Your task to perform on an android device: change text size in settings app Image 0: 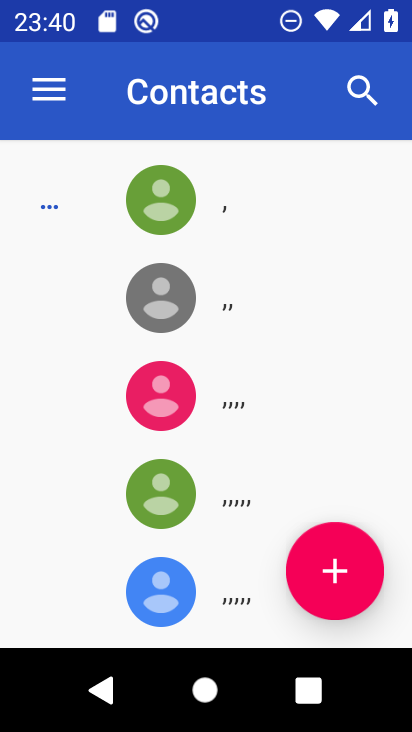
Step 0: press home button
Your task to perform on an android device: change text size in settings app Image 1: 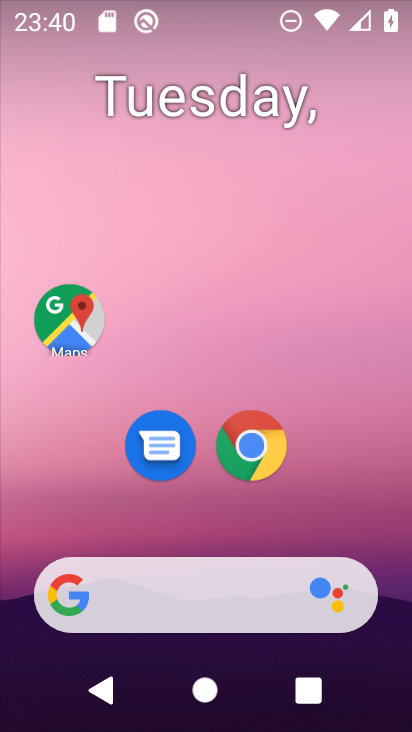
Step 1: drag from (254, 527) to (272, 40)
Your task to perform on an android device: change text size in settings app Image 2: 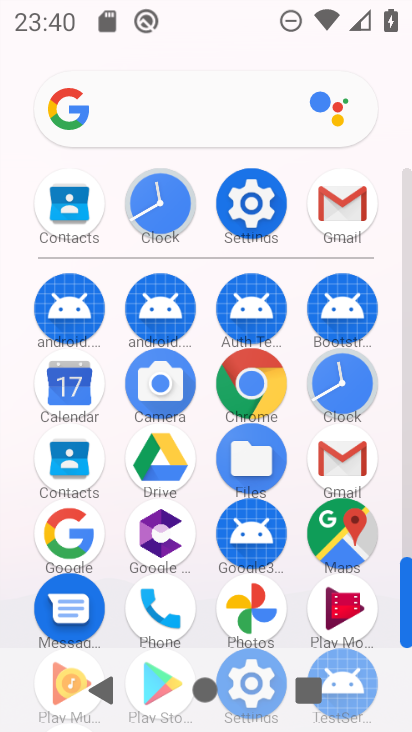
Step 2: click (247, 198)
Your task to perform on an android device: change text size in settings app Image 3: 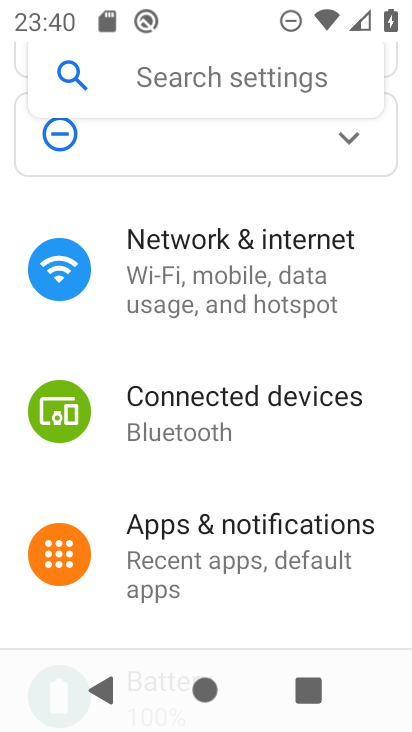
Step 3: drag from (191, 572) to (206, 383)
Your task to perform on an android device: change text size in settings app Image 4: 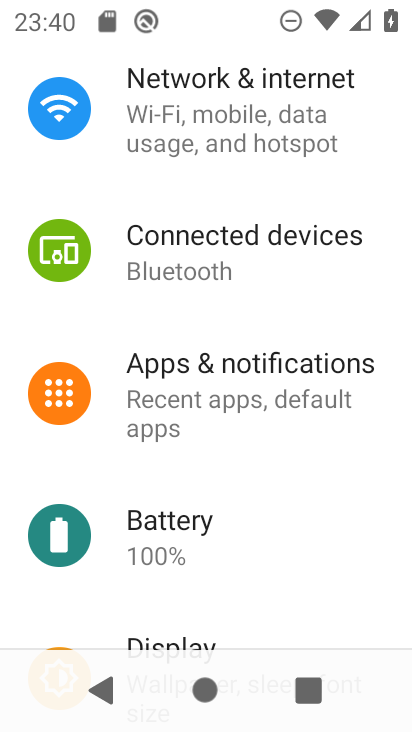
Step 4: drag from (170, 576) to (209, 349)
Your task to perform on an android device: change text size in settings app Image 5: 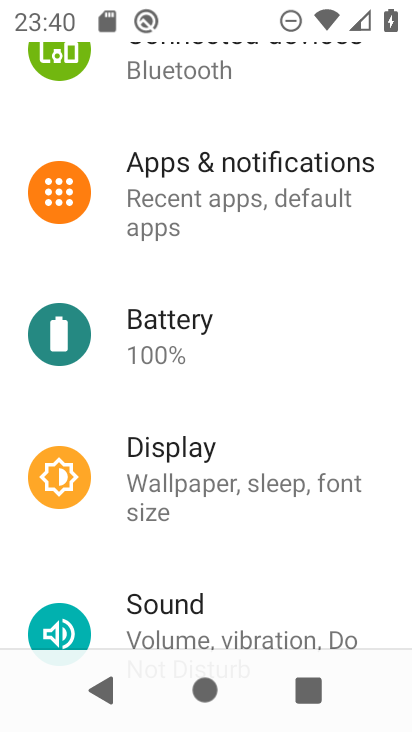
Step 5: drag from (188, 541) to (185, 391)
Your task to perform on an android device: change text size in settings app Image 6: 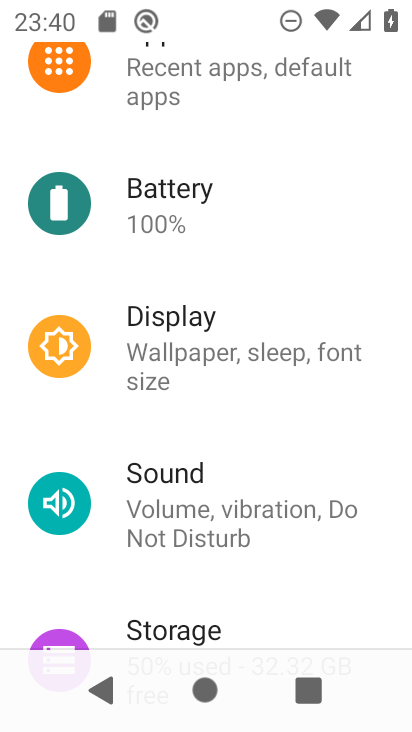
Step 6: drag from (161, 531) to (148, 407)
Your task to perform on an android device: change text size in settings app Image 7: 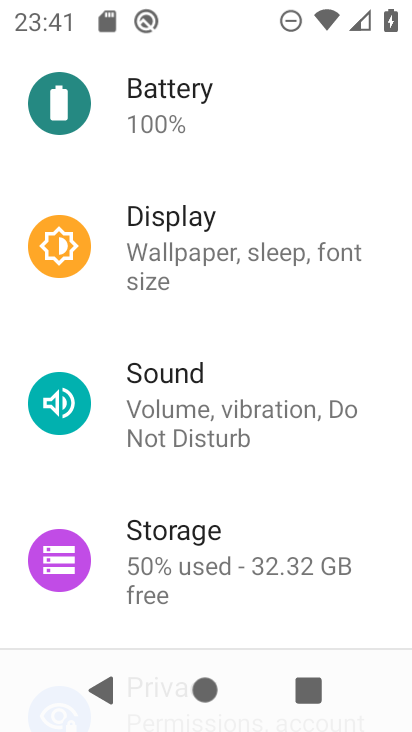
Step 7: drag from (134, 605) to (142, 465)
Your task to perform on an android device: change text size in settings app Image 8: 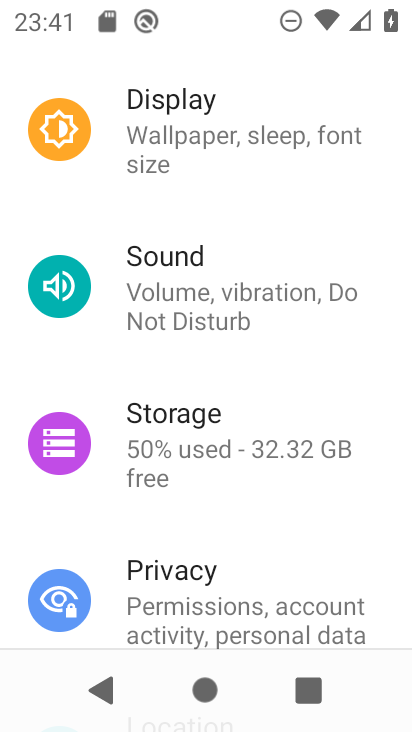
Step 8: drag from (174, 559) to (192, 442)
Your task to perform on an android device: change text size in settings app Image 9: 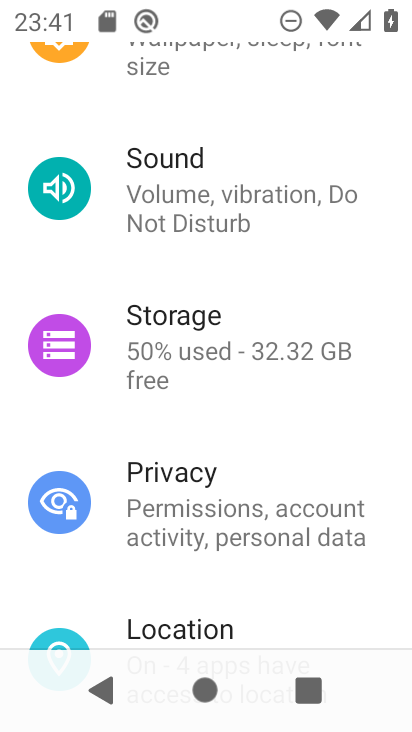
Step 9: drag from (207, 565) to (240, 350)
Your task to perform on an android device: change text size in settings app Image 10: 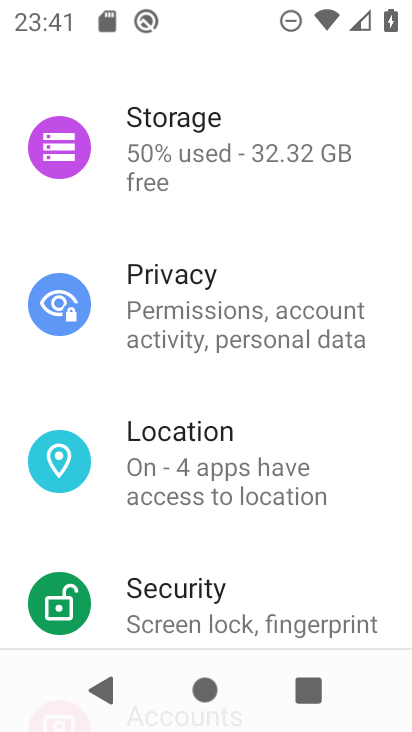
Step 10: drag from (278, 275) to (284, 630)
Your task to perform on an android device: change text size in settings app Image 11: 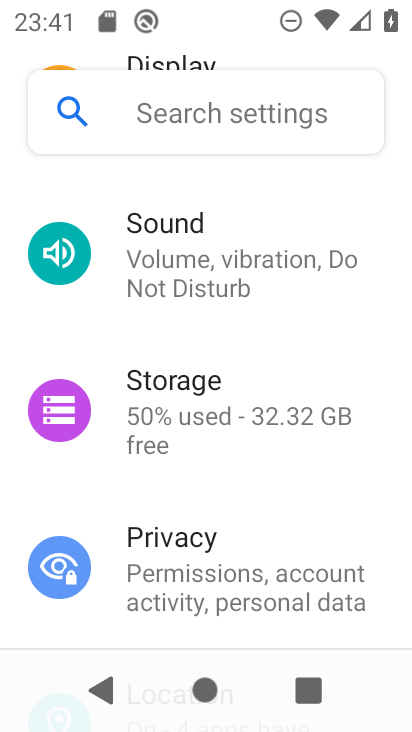
Step 11: drag from (317, 257) to (351, 558)
Your task to perform on an android device: change text size in settings app Image 12: 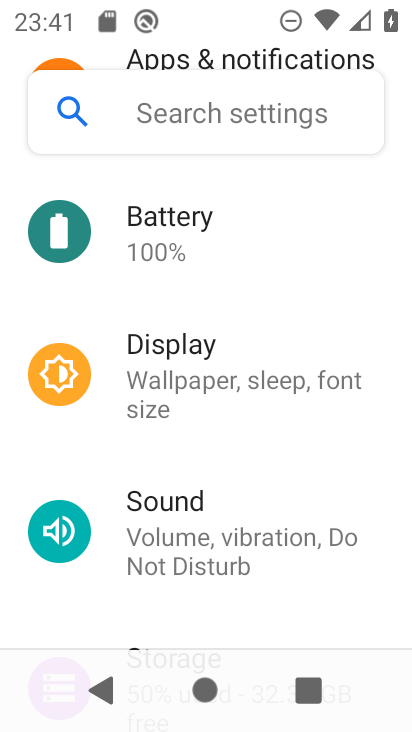
Step 12: click (265, 385)
Your task to perform on an android device: change text size in settings app Image 13: 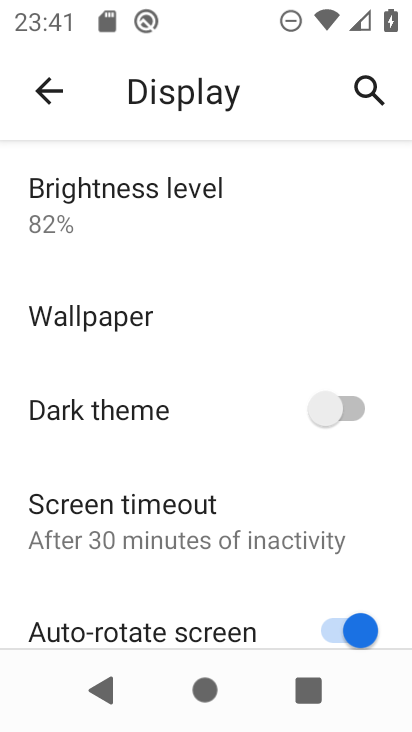
Step 13: drag from (201, 585) to (192, 206)
Your task to perform on an android device: change text size in settings app Image 14: 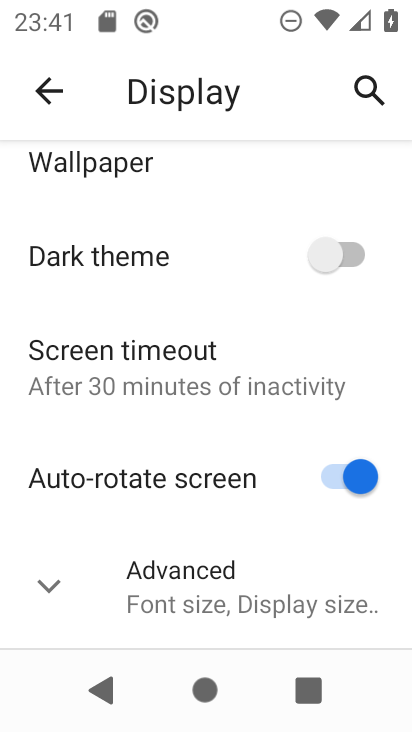
Step 14: click (220, 583)
Your task to perform on an android device: change text size in settings app Image 15: 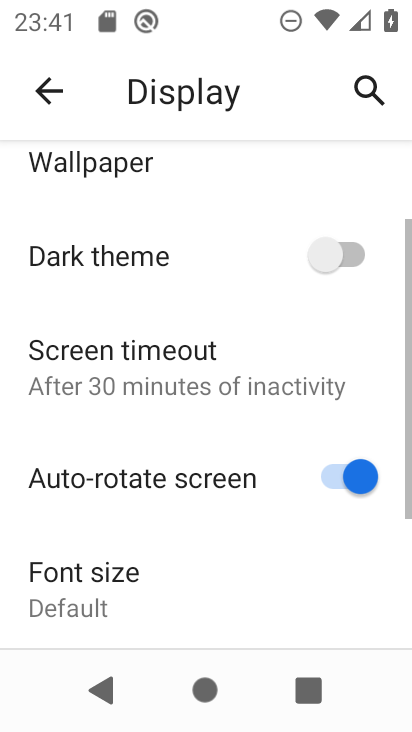
Step 15: drag from (204, 593) to (207, 215)
Your task to perform on an android device: change text size in settings app Image 16: 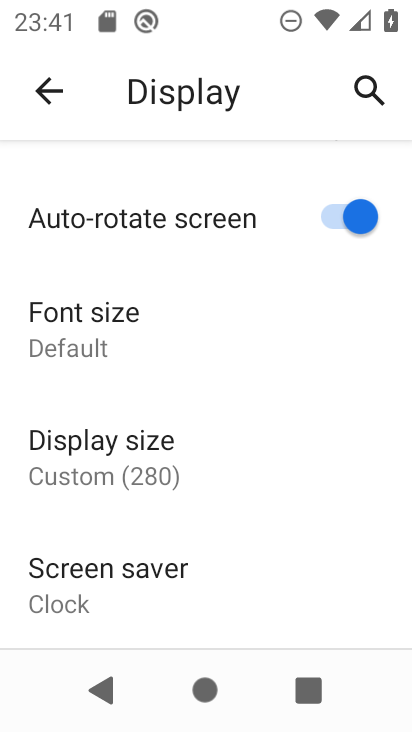
Step 16: click (143, 335)
Your task to perform on an android device: change text size in settings app Image 17: 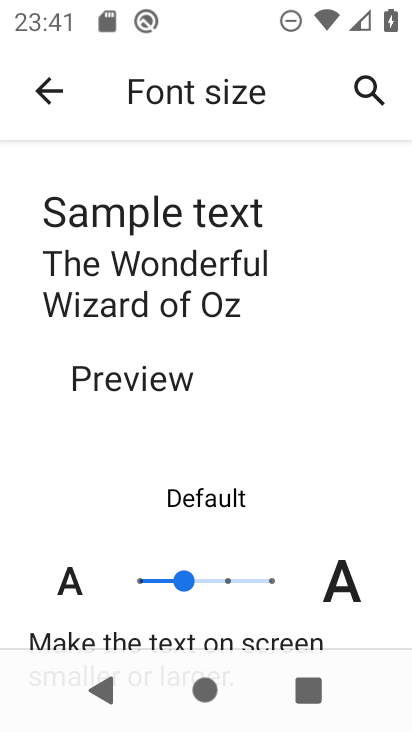
Step 17: click (217, 580)
Your task to perform on an android device: change text size in settings app Image 18: 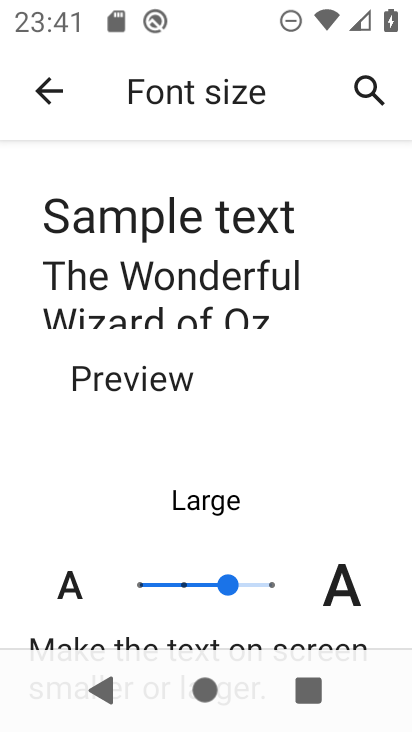
Step 18: task complete